Your task to perform on an android device: check google app version Image 0: 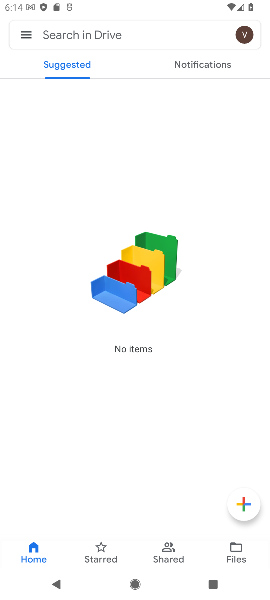
Step 0: press home button
Your task to perform on an android device: check google app version Image 1: 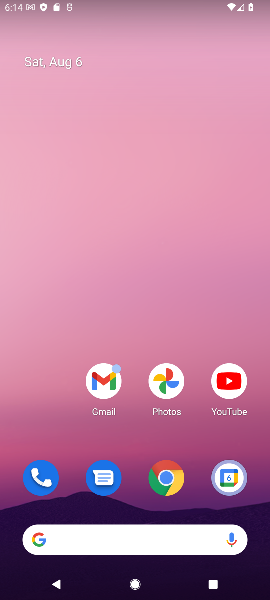
Step 1: click (36, 537)
Your task to perform on an android device: check google app version Image 2: 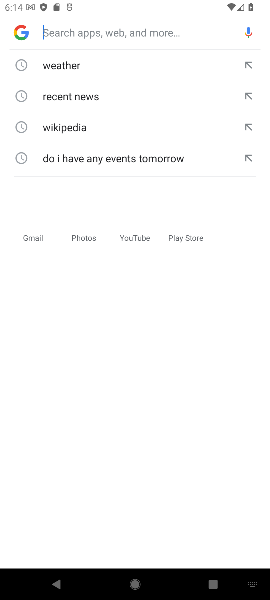
Step 2: click (20, 28)
Your task to perform on an android device: check google app version Image 3: 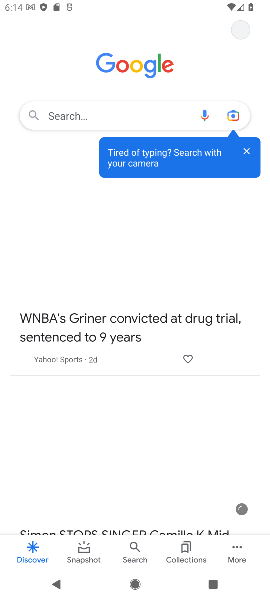
Step 3: click (239, 552)
Your task to perform on an android device: check google app version Image 4: 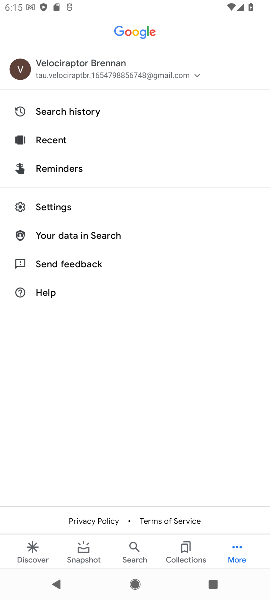
Step 4: click (44, 202)
Your task to perform on an android device: check google app version Image 5: 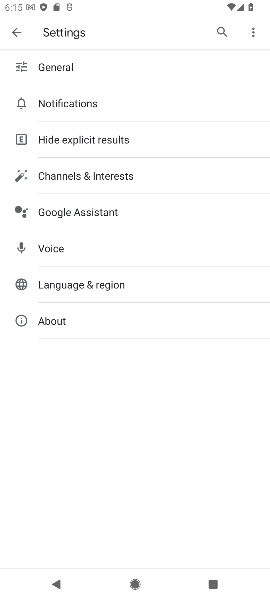
Step 5: click (60, 315)
Your task to perform on an android device: check google app version Image 6: 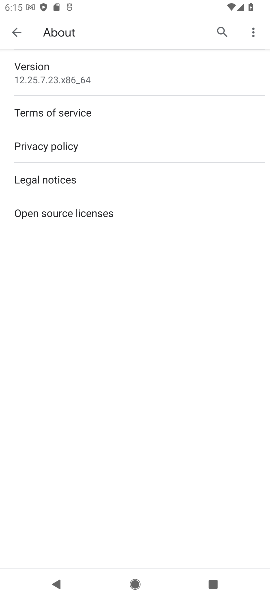
Step 6: task complete